Your task to perform on an android device: remove spam from my inbox in the gmail app Image 0: 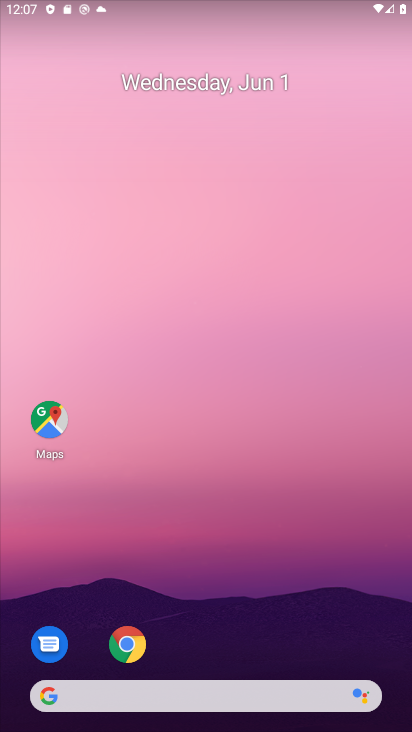
Step 0: drag from (343, 591) to (295, 110)
Your task to perform on an android device: remove spam from my inbox in the gmail app Image 1: 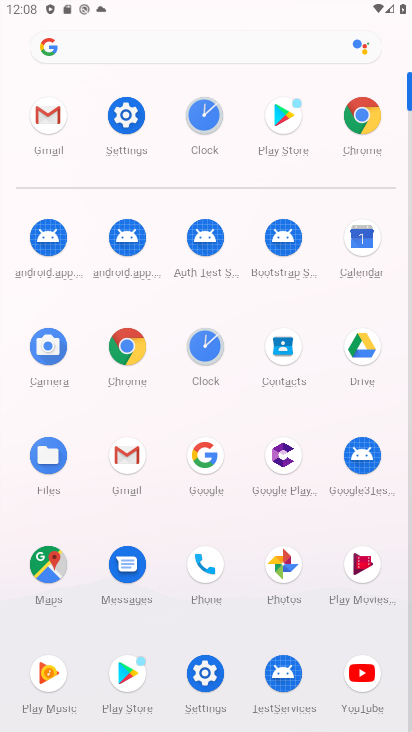
Step 1: click (48, 131)
Your task to perform on an android device: remove spam from my inbox in the gmail app Image 2: 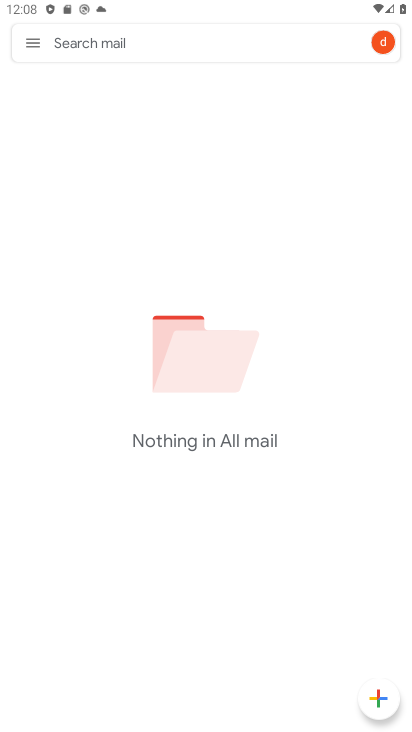
Step 2: click (25, 40)
Your task to perform on an android device: remove spam from my inbox in the gmail app Image 3: 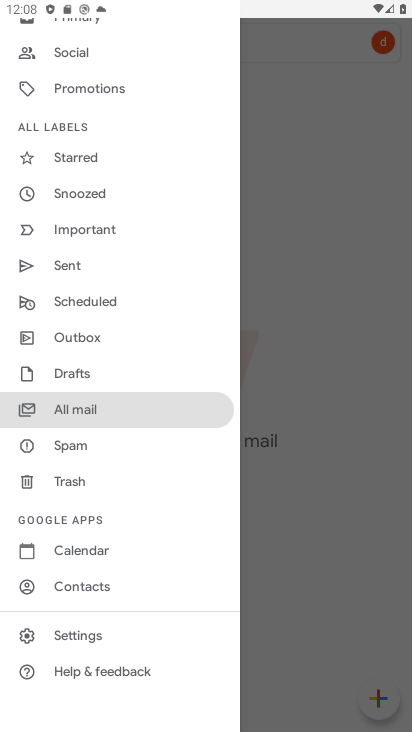
Step 3: click (113, 451)
Your task to perform on an android device: remove spam from my inbox in the gmail app Image 4: 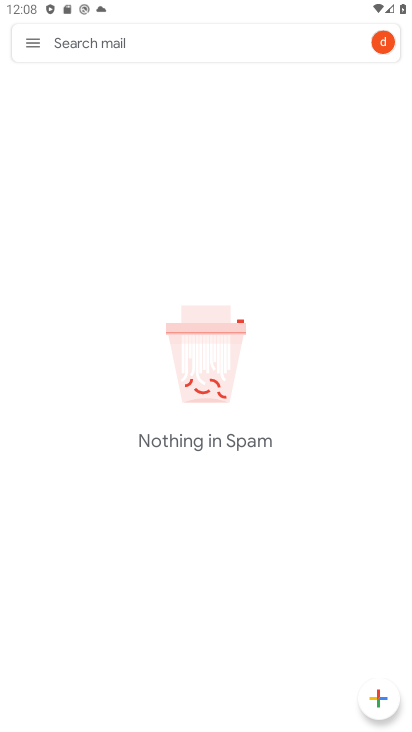
Step 4: task complete